Your task to perform on an android device: turn notification dots on Image 0: 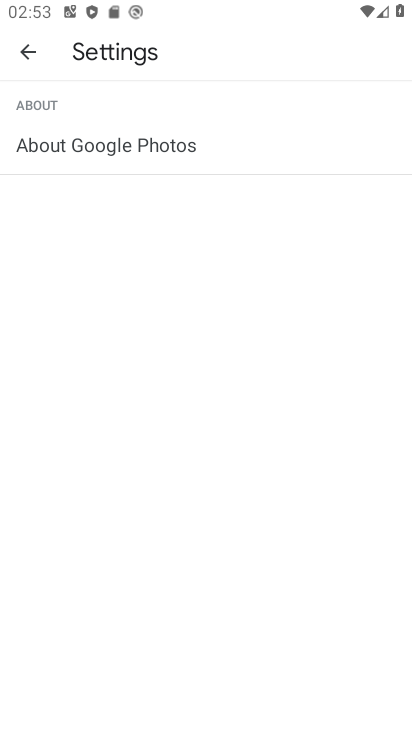
Step 0: press home button
Your task to perform on an android device: turn notification dots on Image 1: 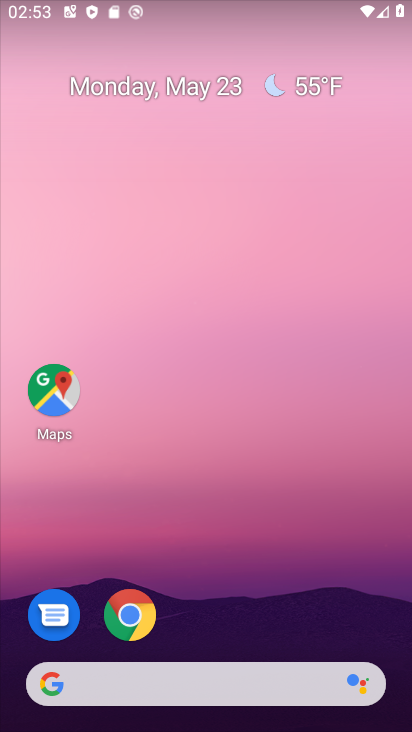
Step 1: drag from (365, 627) to (372, 161)
Your task to perform on an android device: turn notification dots on Image 2: 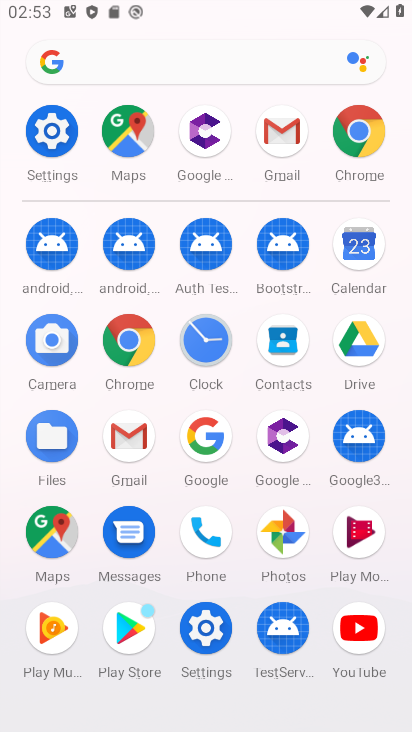
Step 2: click (215, 635)
Your task to perform on an android device: turn notification dots on Image 3: 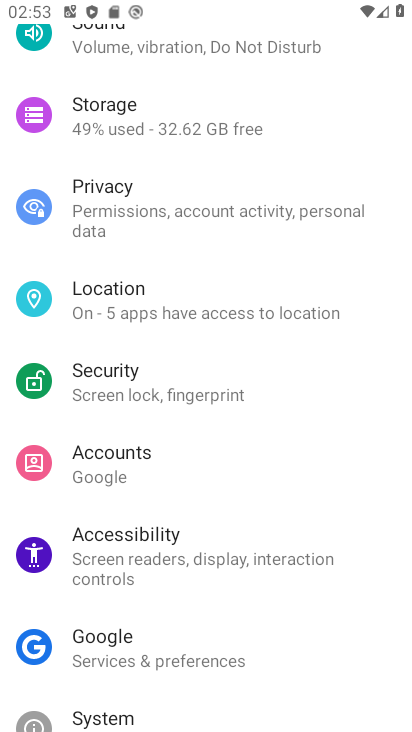
Step 3: drag from (334, 663) to (366, 446)
Your task to perform on an android device: turn notification dots on Image 4: 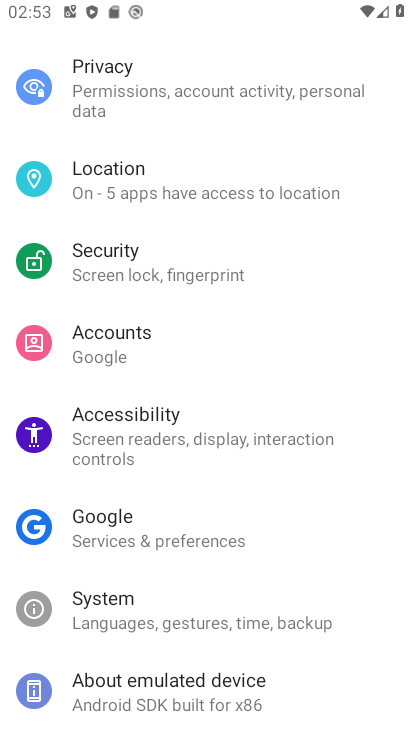
Step 4: drag from (362, 457) to (363, 559)
Your task to perform on an android device: turn notification dots on Image 5: 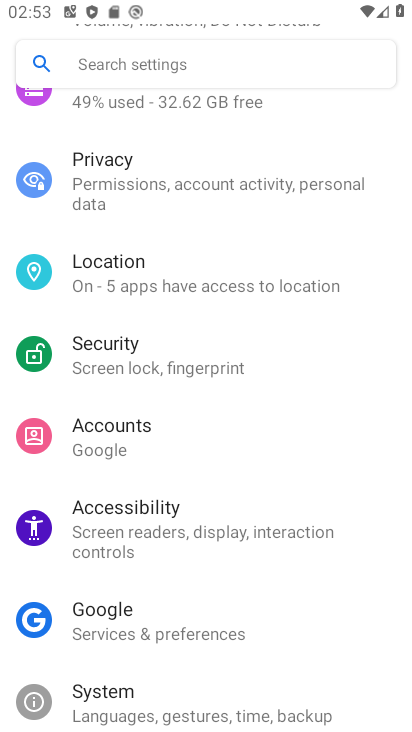
Step 5: drag from (350, 409) to (339, 539)
Your task to perform on an android device: turn notification dots on Image 6: 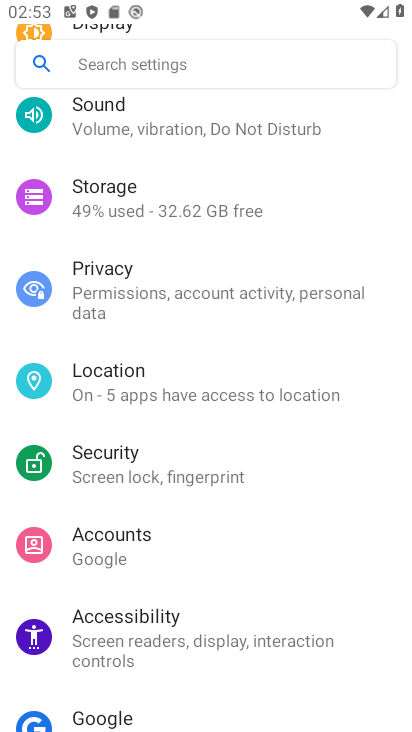
Step 6: drag from (348, 439) to (331, 541)
Your task to perform on an android device: turn notification dots on Image 7: 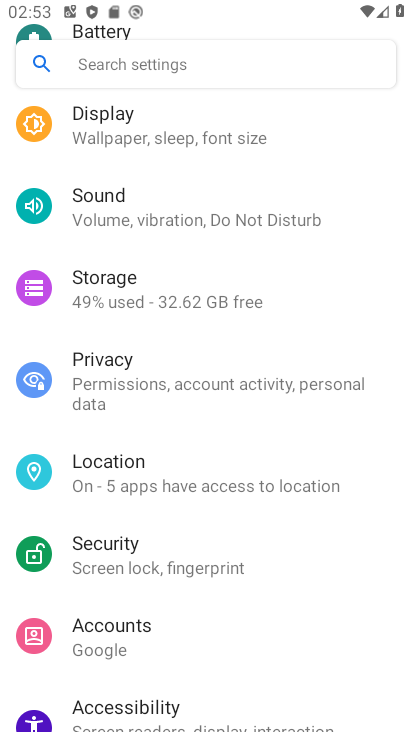
Step 7: drag from (340, 408) to (338, 501)
Your task to perform on an android device: turn notification dots on Image 8: 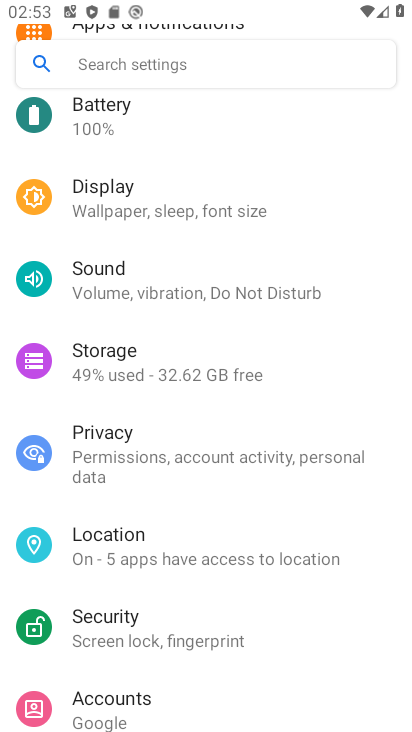
Step 8: drag from (379, 316) to (350, 506)
Your task to perform on an android device: turn notification dots on Image 9: 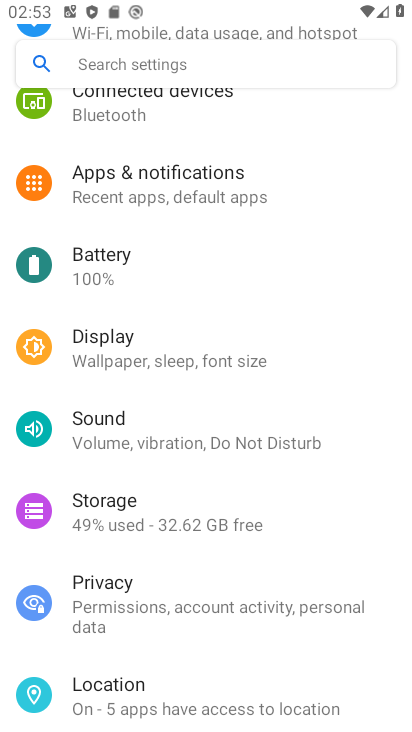
Step 9: drag from (354, 304) to (353, 446)
Your task to perform on an android device: turn notification dots on Image 10: 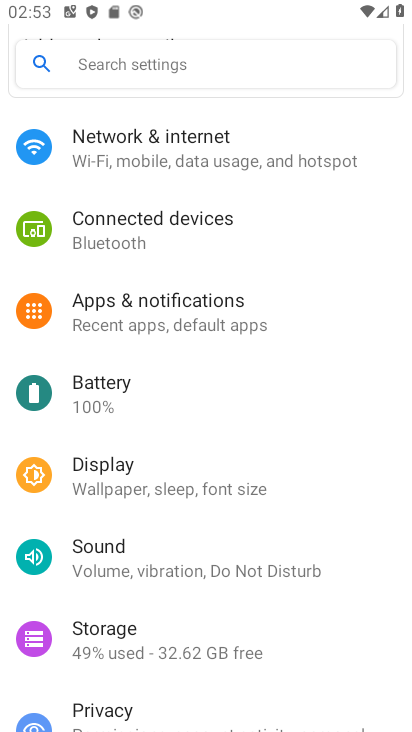
Step 10: drag from (352, 301) to (355, 438)
Your task to perform on an android device: turn notification dots on Image 11: 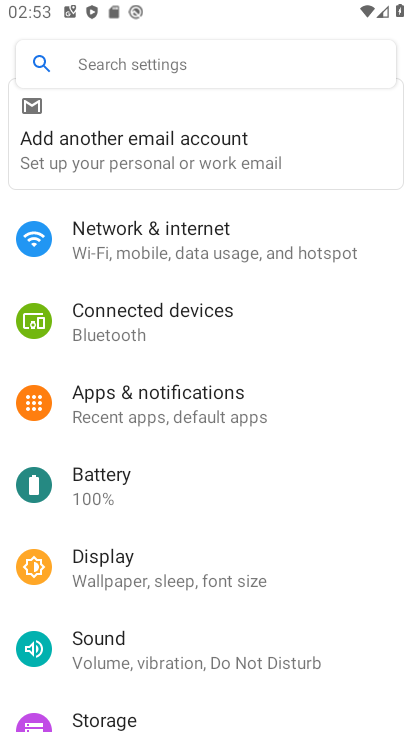
Step 11: drag from (359, 300) to (358, 440)
Your task to perform on an android device: turn notification dots on Image 12: 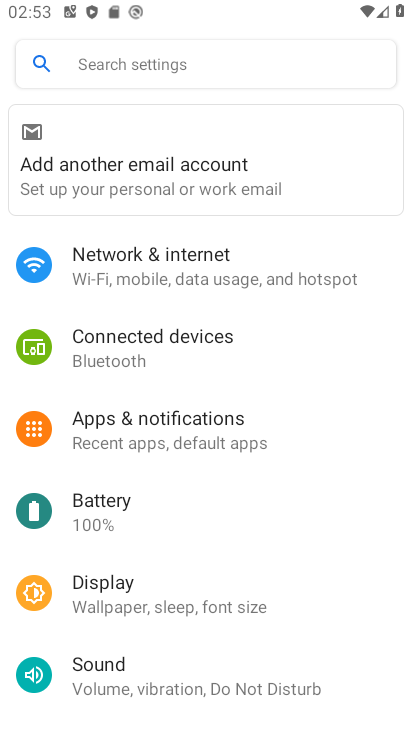
Step 12: click (205, 444)
Your task to perform on an android device: turn notification dots on Image 13: 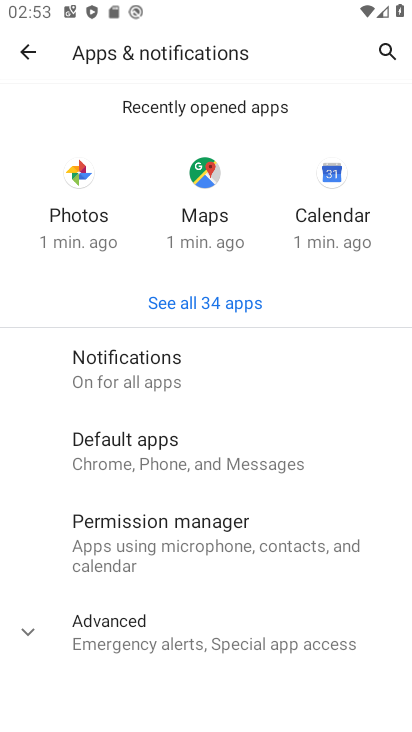
Step 13: drag from (316, 583) to (309, 438)
Your task to perform on an android device: turn notification dots on Image 14: 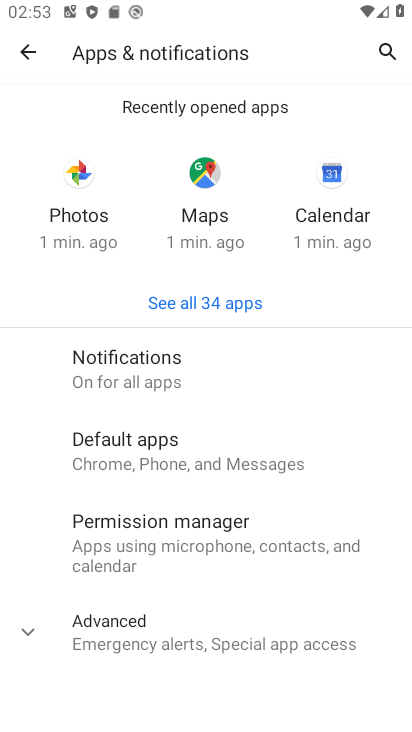
Step 14: click (163, 381)
Your task to perform on an android device: turn notification dots on Image 15: 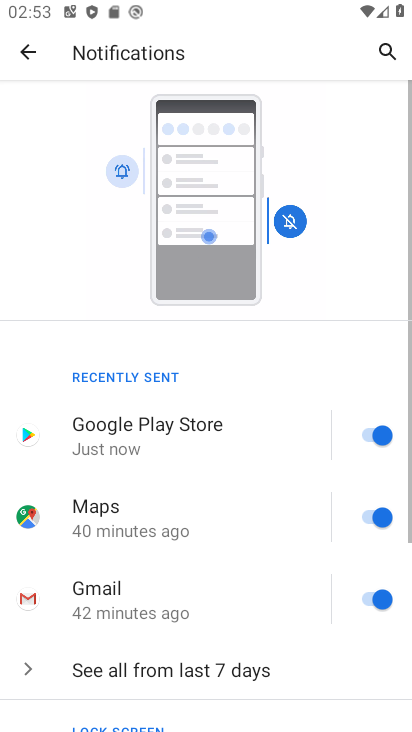
Step 15: drag from (287, 598) to (274, 400)
Your task to perform on an android device: turn notification dots on Image 16: 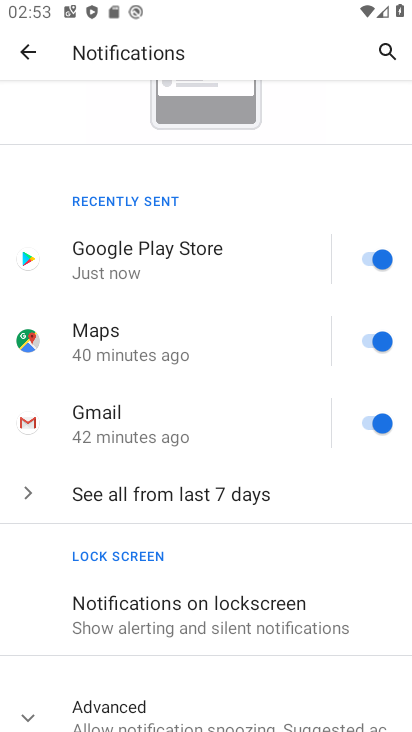
Step 16: drag from (283, 663) to (305, 489)
Your task to perform on an android device: turn notification dots on Image 17: 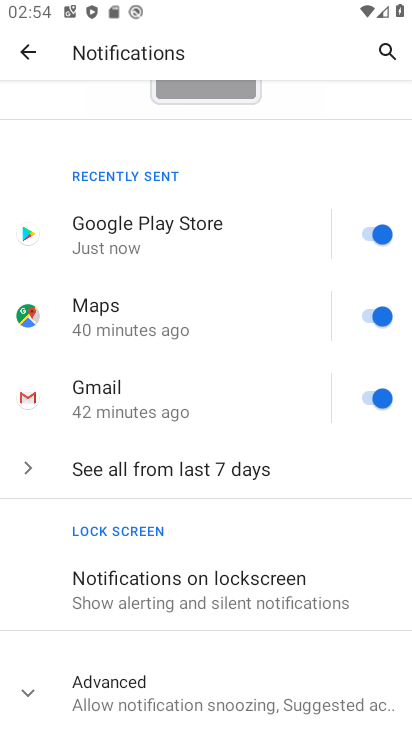
Step 17: click (269, 687)
Your task to perform on an android device: turn notification dots on Image 18: 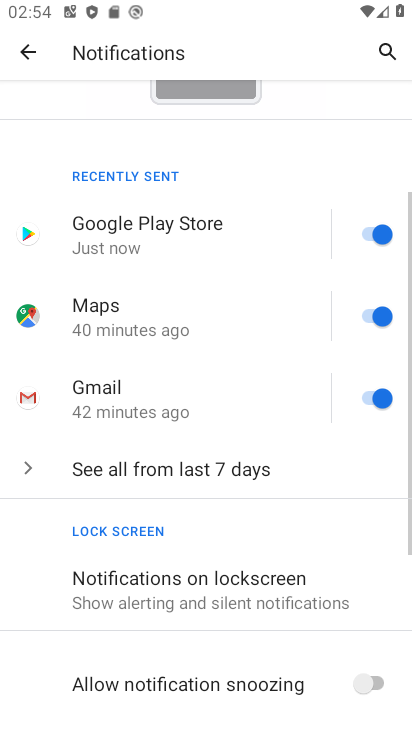
Step 18: task complete